Your task to perform on an android device: Go to display settings Image 0: 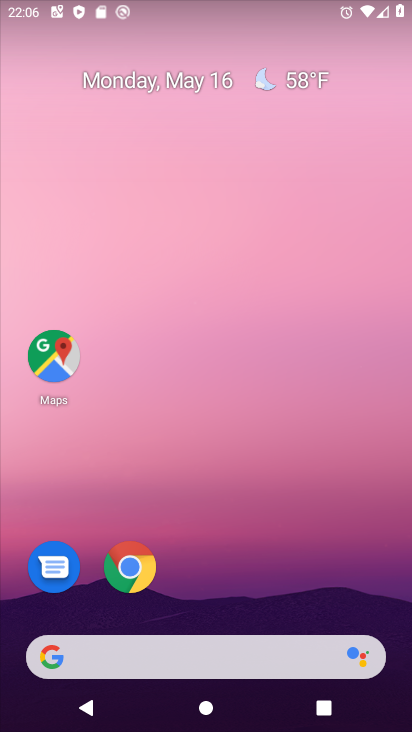
Step 0: drag from (300, 601) to (242, 184)
Your task to perform on an android device: Go to display settings Image 1: 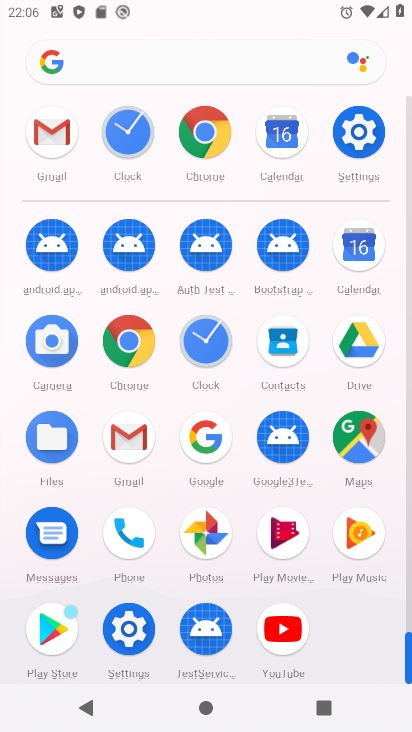
Step 1: click (356, 132)
Your task to perform on an android device: Go to display settings Image 2: 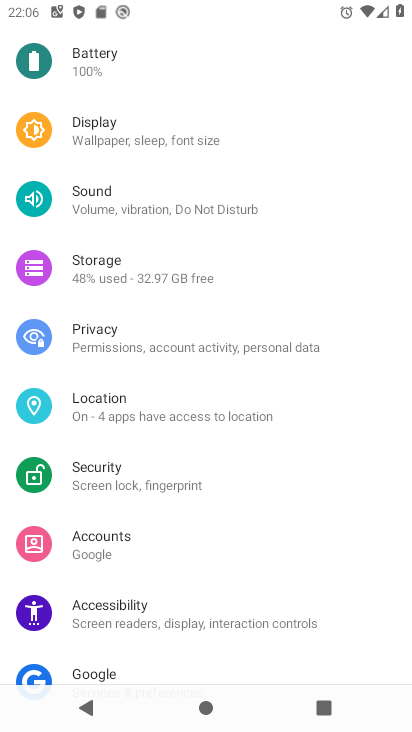
Step 2: click (154, 128)
Your task to perform on an android device: Go to display settings Image 3: 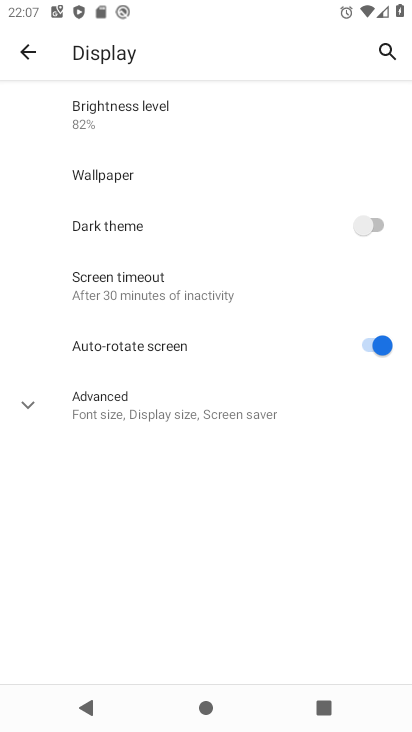
Step 3: task complete